Your task to perform on an android device: What's on Reddit this week Image 0: 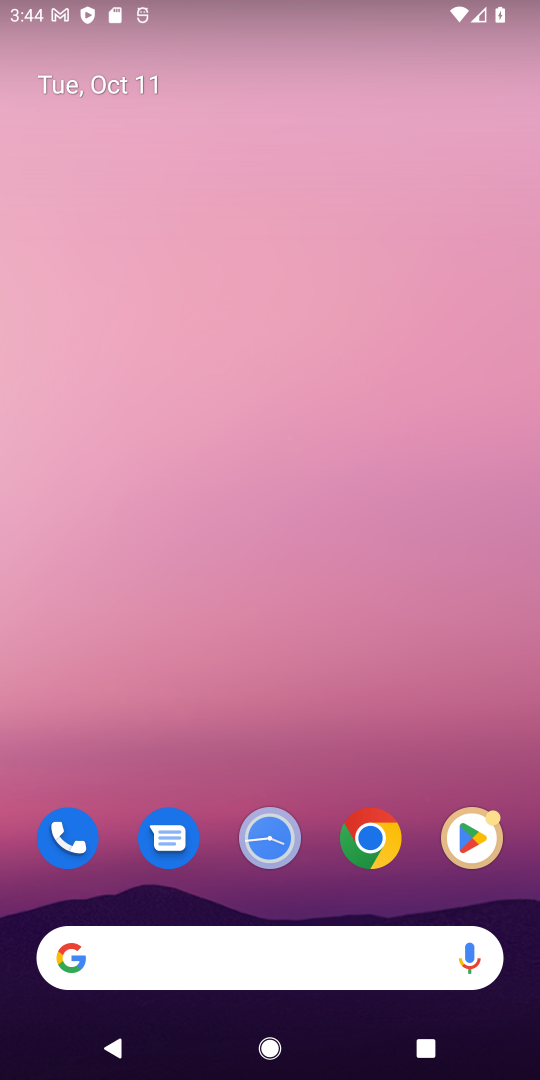
Step 0: click (249, 948)
Your task to perform on an android device: What's on Reddit this week Image 1: 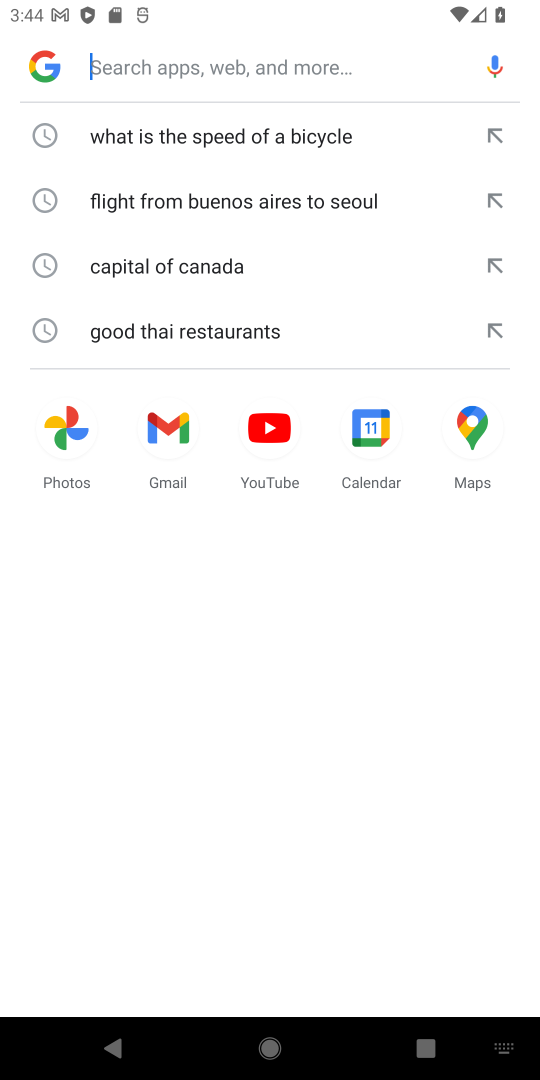
Step 1: click (152, 60)
Your task to perform on an android device: What's on Reddit this week Image 2: 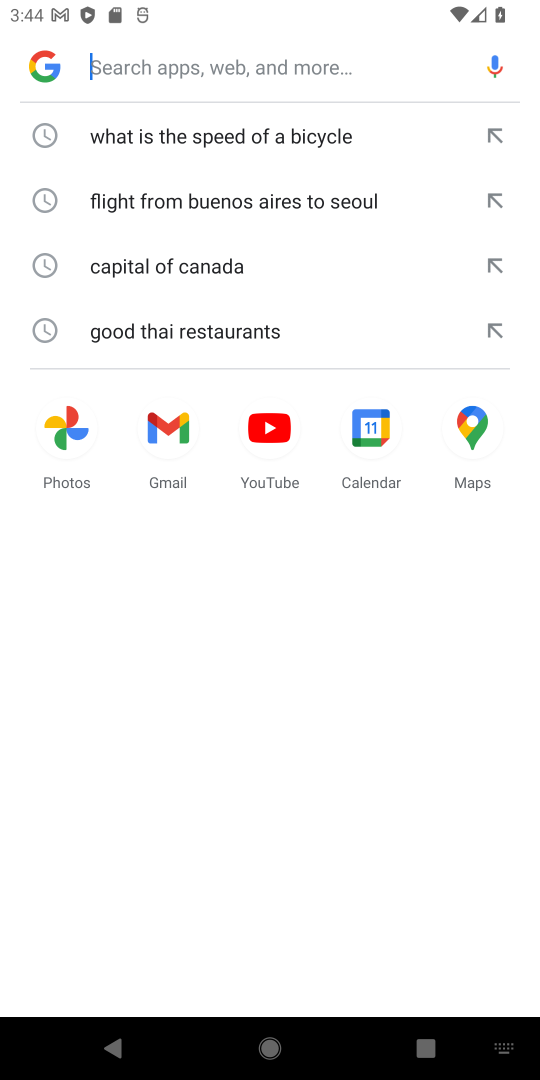
Step 2: type "What's on Reddit this week"
Your task to perform on an android device: What's on Reddit this week Image 3: 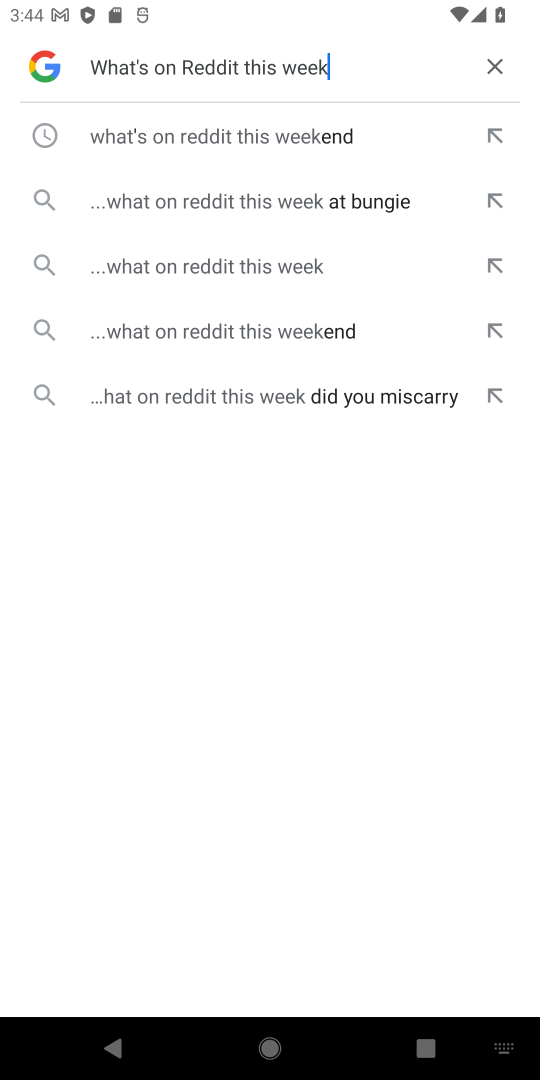
Step 3: click (186, 274)
Your task to perform on an android device: What's on Reddit this week Image 4: 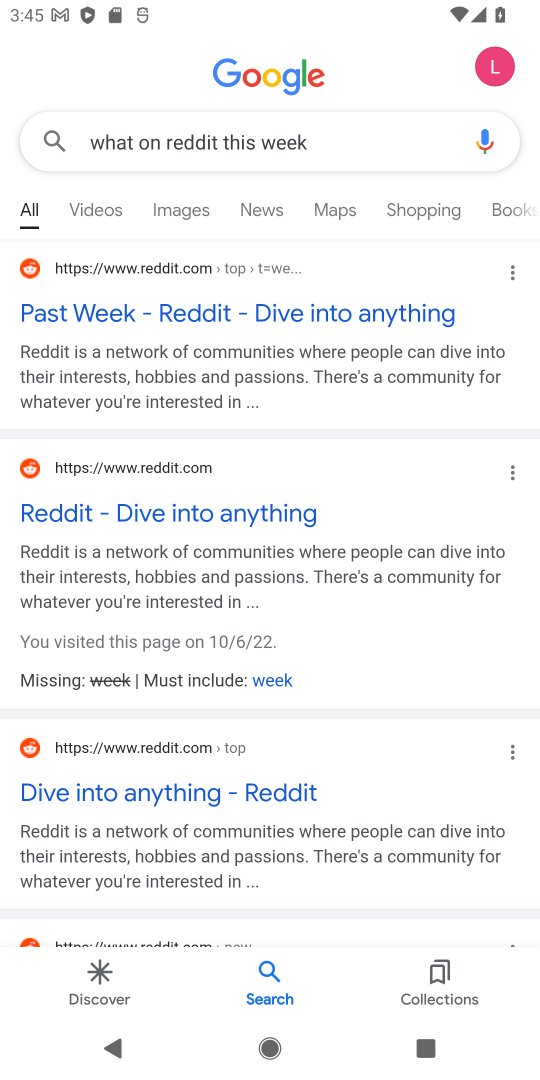
Step 4: click (270, 304)
Your task to perform on an android device: What's on Reddit this week Image 5: 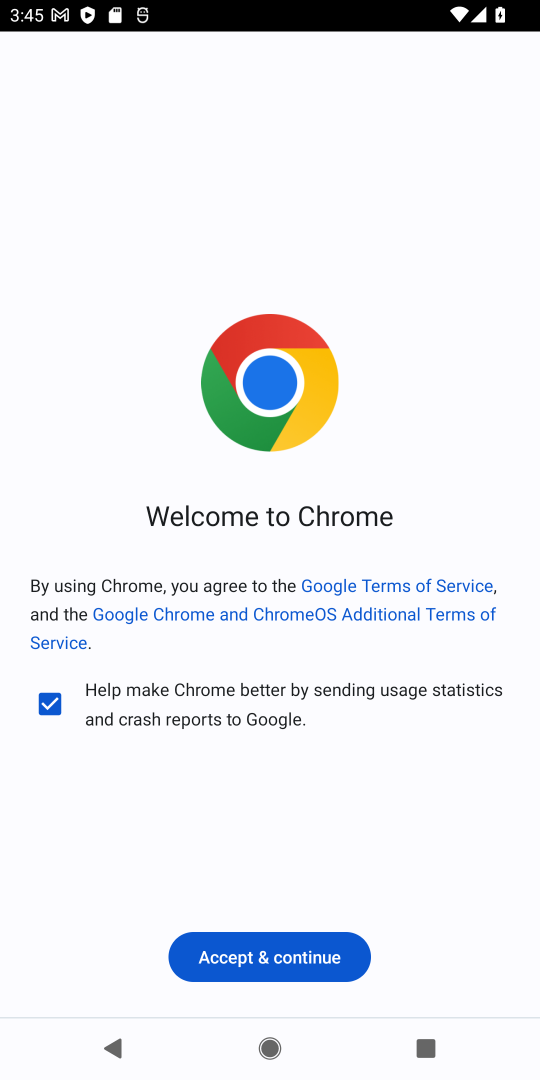
Step 5: click (282, 946)
Your task to perform on an android device: What's on Reddit this week Image 6: 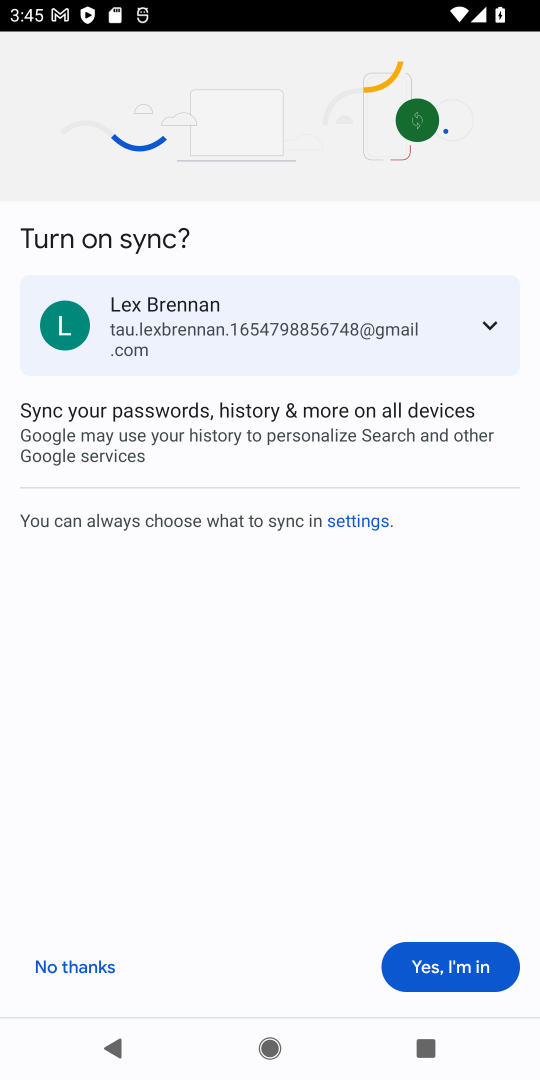
Step 6: click (517, 949)
Your task to perform on an android device: What's on Reddit this week Image 7: 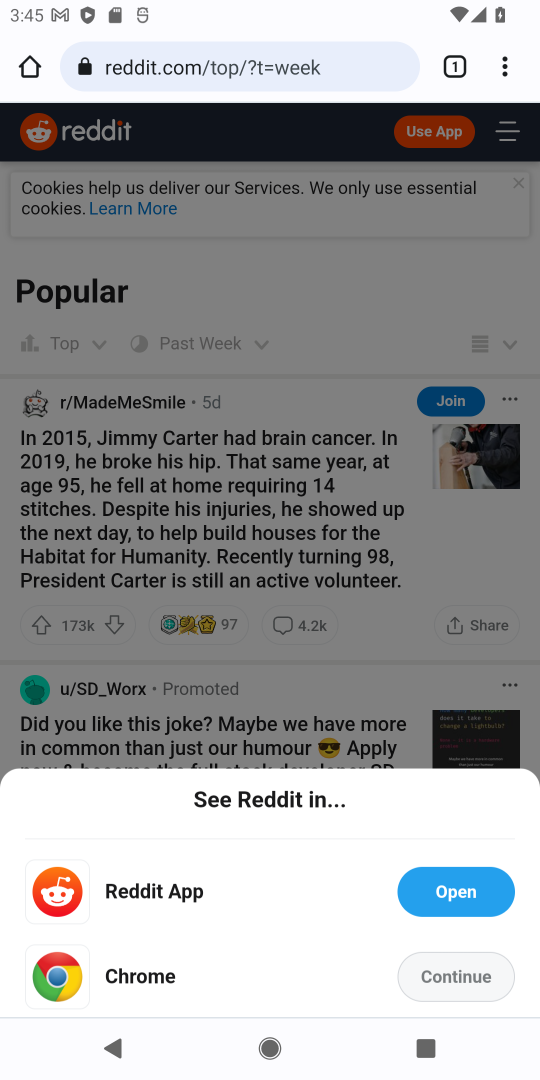
Step 7: task complete